Your task to perform on an android device: Open Google Maps and go to "Timeline" Image 0: 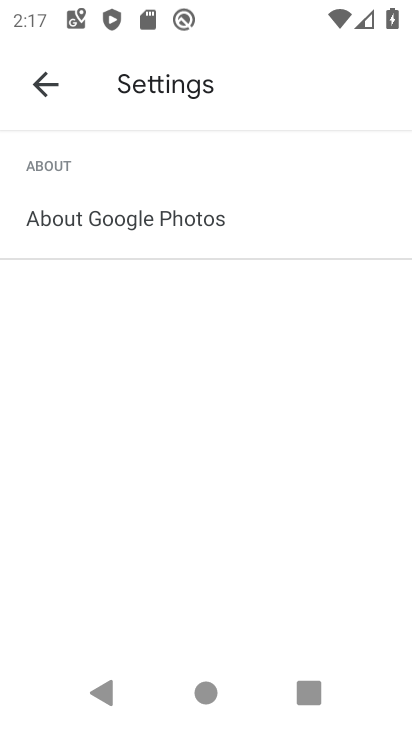
Step 0: press back button
Your task to perform on an android device: Open Google Maps and go to "Timeline" Image 1: 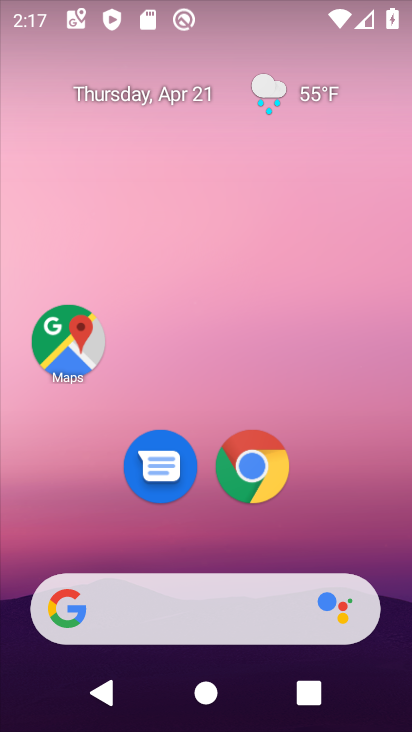
Step 1: drag from (327, 541) to (297, 85)
Your task to perform on an android device: Open Google Maps and go to "Timeline" Image 2: 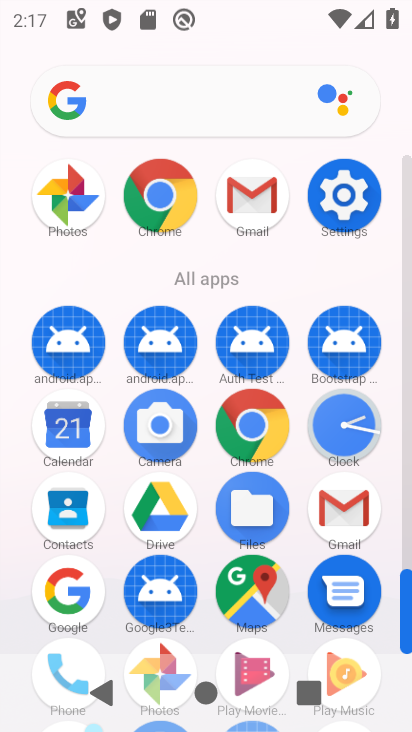
Step 2: click (256, 582)
Your task to perform on an android device: Open Google Maps and go to "Timeline" Image 3: 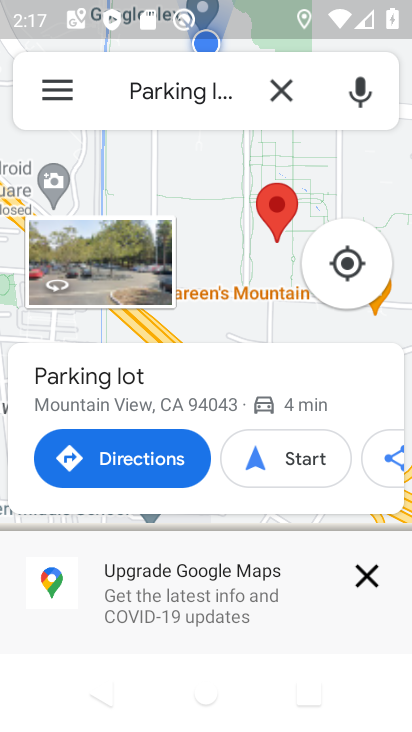
Step 3: click (276, 86)
Your task to perform on an android device: Open Google Maps and go to "Timeline" Image 4: 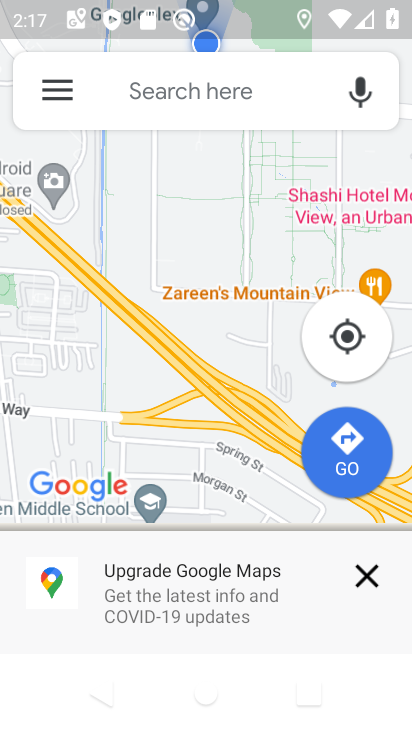
Step 4: click (63, 83)
Your task to perform on an android device: Open Google Maps and go to "Timeline" Image 5: 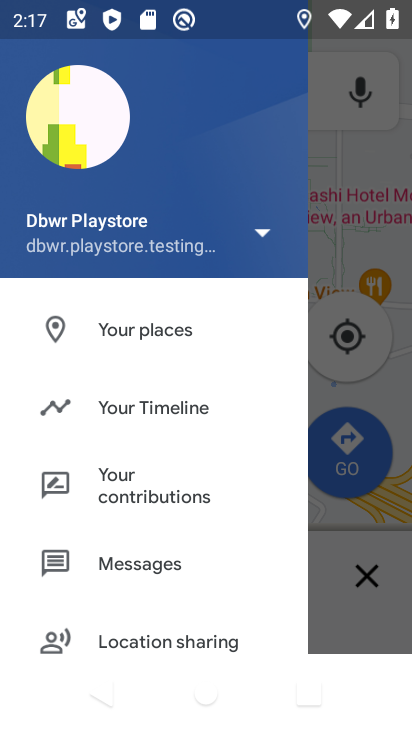
Step 5: click (145, 410)
Your task to perform on an android device: Open Google Maps and go to "Timeline" Image 6: 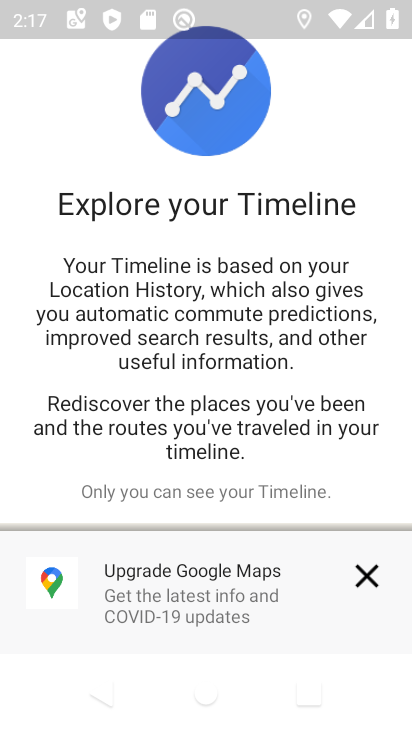
Step 6: task complete